Your task to perform on an android device: find snoozed emails in the gmail app Image 0: 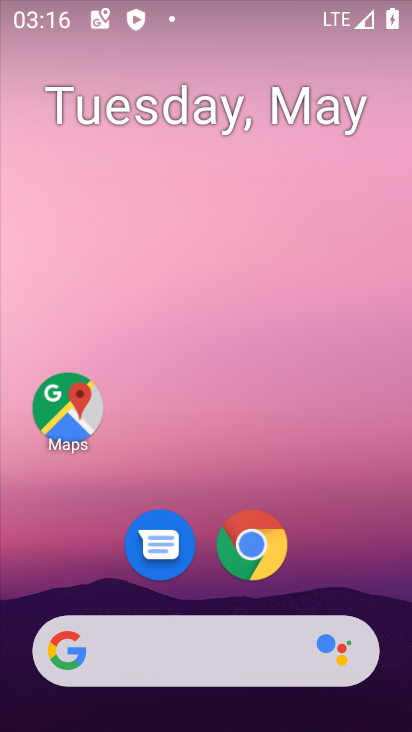
Step 0: click (395, 583)
Your task to perform on an android device: find snoozed emails in the gmail app Image 1: 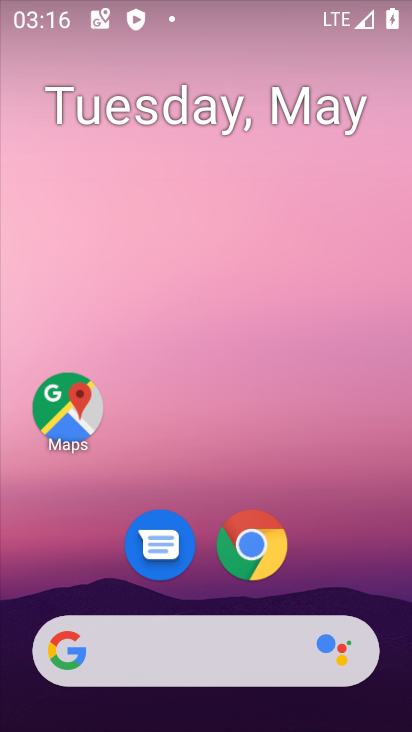
Step 1: drag from (391, 607) to (312, 107)
Your task to perform on an android device: find snoozed emails in the gmail app Image 2: 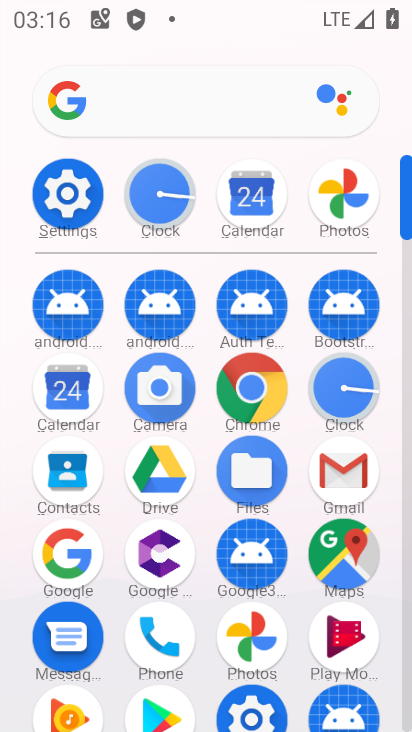
Step 2: click (341, 468)
Your task to perform on an android device: find snoozed emails in the gmail app Image 3: 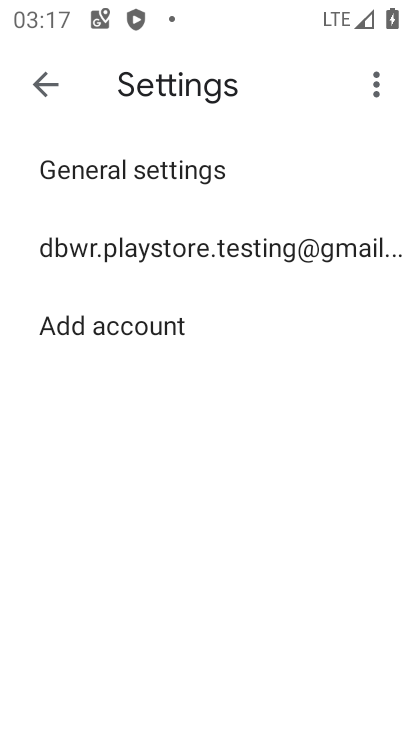
Step 3: press back button
Your task to perform on an android device: find snoozed emails in the gmail app Image 4: 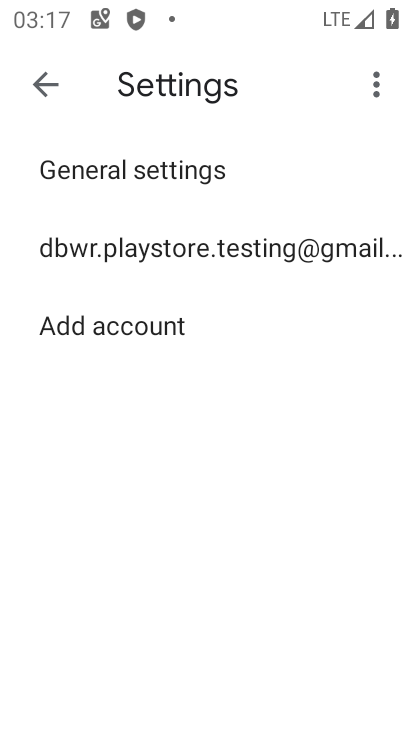
Step 4: press back button
Your task to perform on an android device: find snoozed emails in the gmail app Image 5: 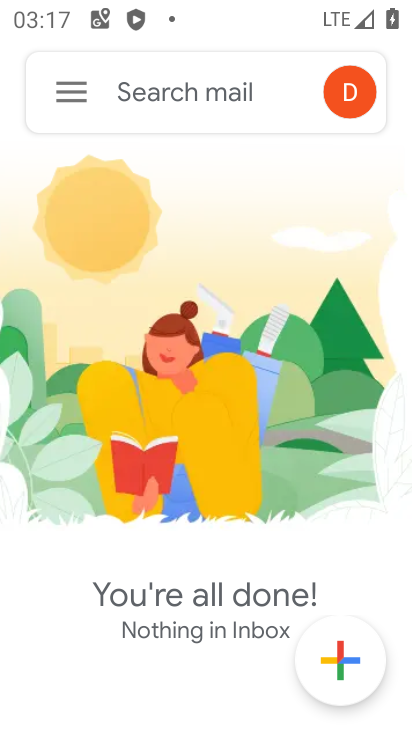
Step 5: click (73, 97)
Your task to perform on an android device: find snoozed emails in the gmail app Image 6: 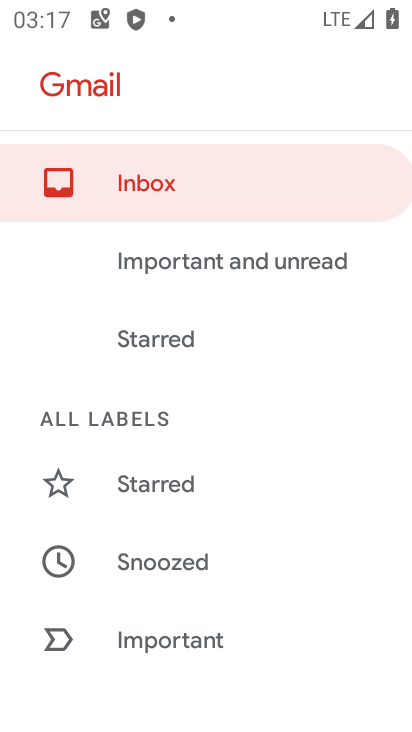
Step 6: click (139, 559)
Your task to perform on an android device: find snoozed emails in the gmail app Image 7: 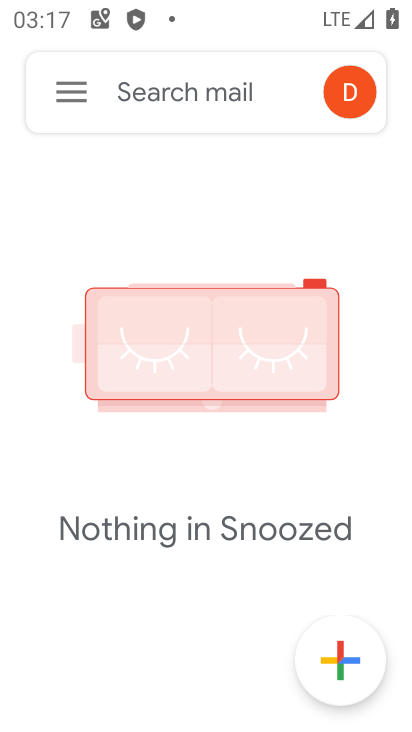
Step 7: task complete